Your task to perform on an android device: open chrome privacy settings Image 0: 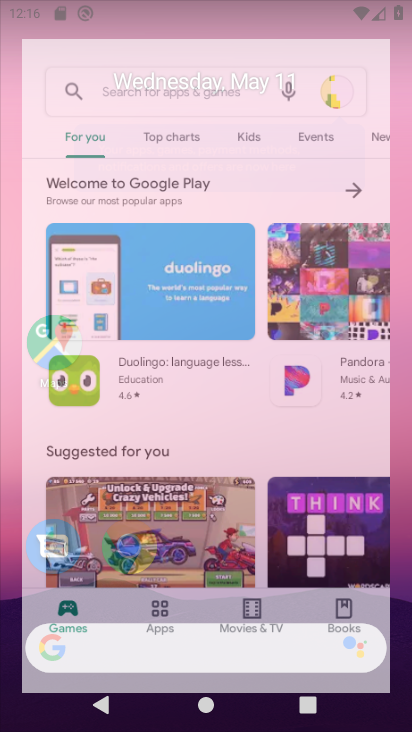
Step 0: drag from (318, 380) to (317, 265)
Your task to perform on an android device: open chrome privacy settings Image 1: 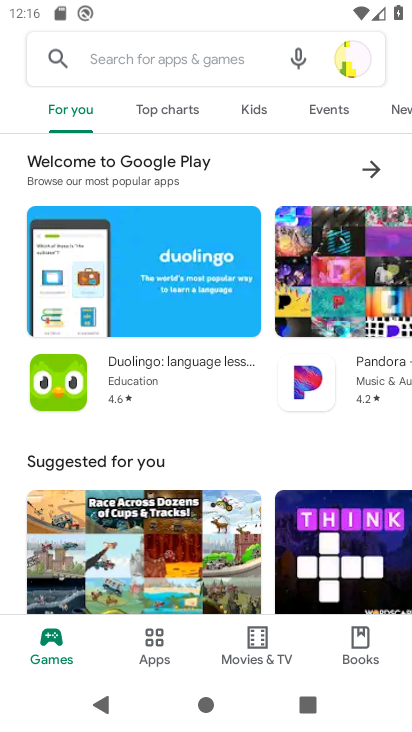
Step 1: press home button
Your task to perform on an android device: open chrome privacy settings Image 2: 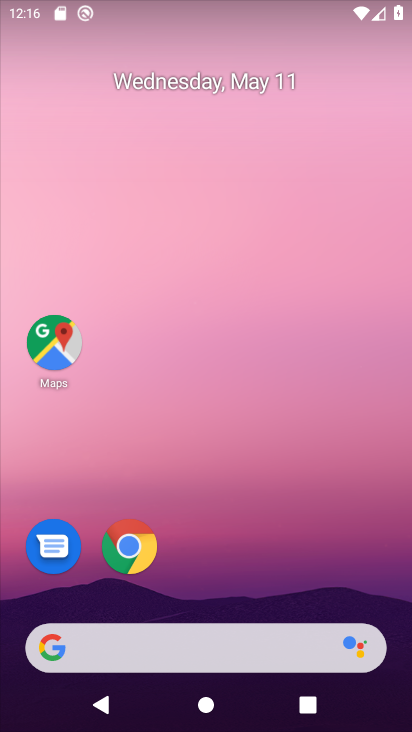
Step 2: drag from (248, 522) to (256, 198)
Your task to perform on an android device: open chrome privacy settings Image 3: 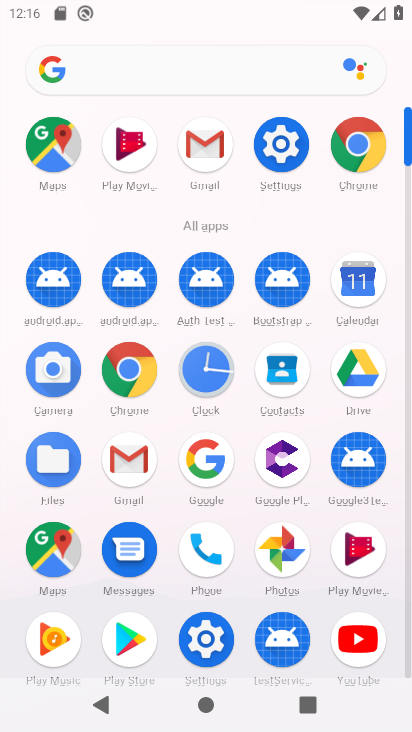
Step 3: click (358, 137)
Your task to perform on an android device: open chrome privacy settings Image 4: 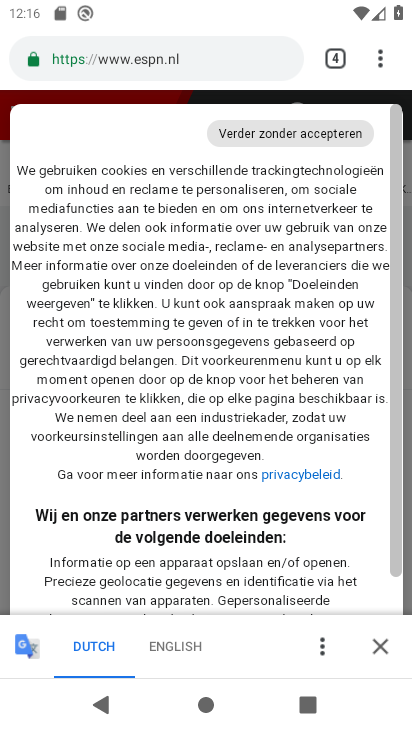
Step 4: click (367, 54)
Your task to perform on an android device: open chrome privacy settings Image 5: 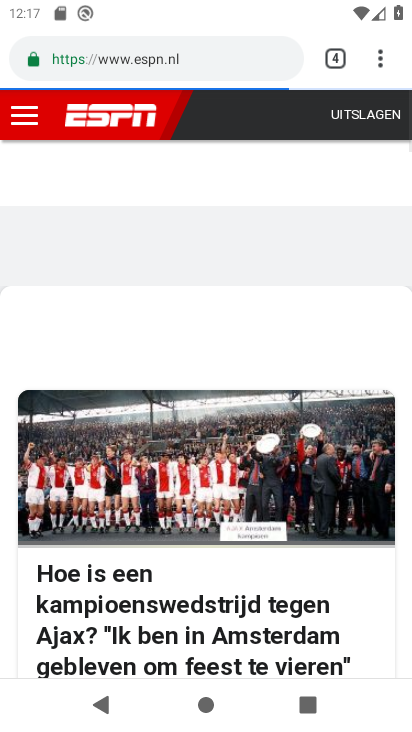
Step 5: click (368, 55)
Your task to perform on an android device: open chrome privacy settings Image 6: 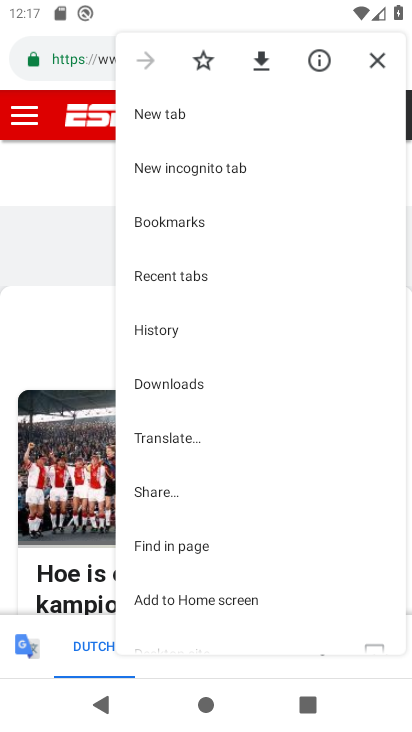
Step 6: drag from (230, 597) to (273, 299)
Your task to perform on an android device: open chrome privacy settings Image 7: 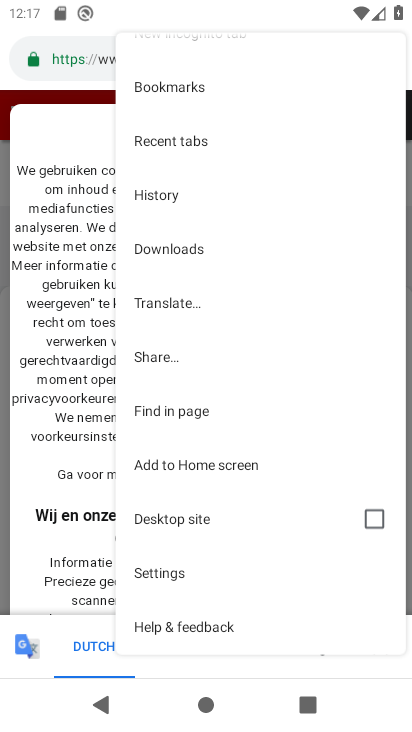
Step 7: click (185, 572)
Your task to perform on an android device: open chrome privacy settings Image 8: 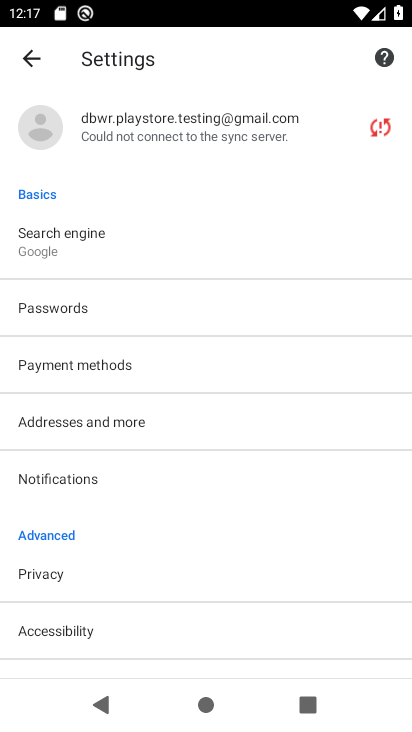
Step 8: drag from (159, 612) to (179, 463)
Your task to perform on an android device: open chrome privacy settings Image 9: 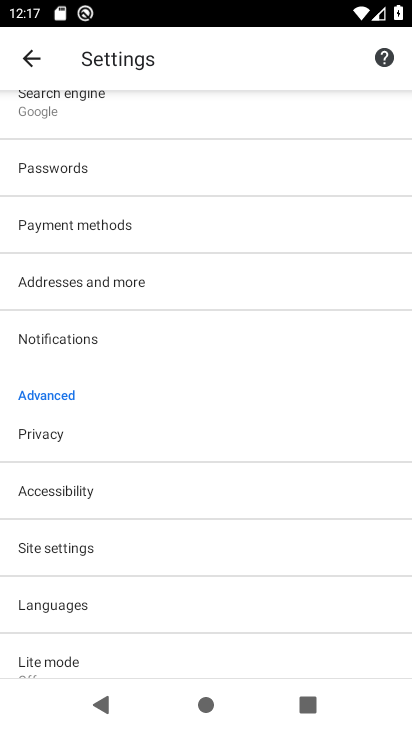
Step 9: click (64, 435)
Your task to perform on an android device: open chrome privacy settings Image 10: 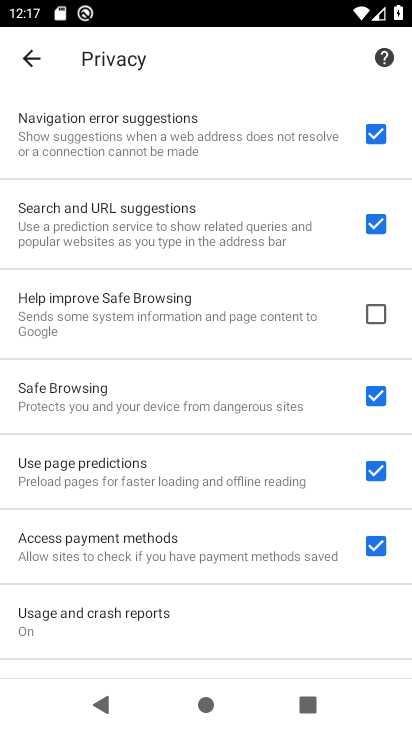
Step 10: task complete